Your task to perform on an android device: Go to Amazon Image 0: 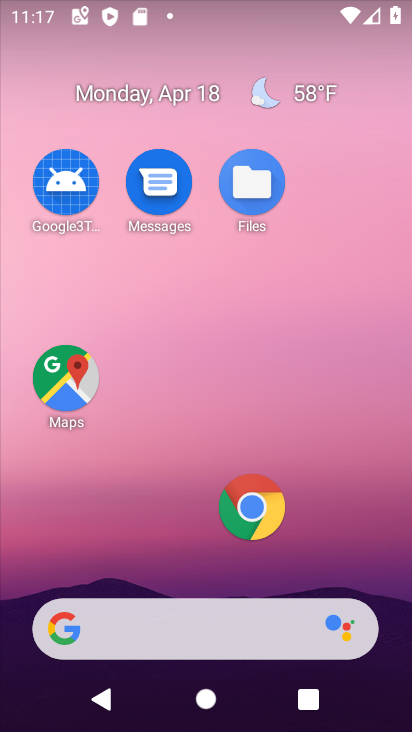
Step 0: click (244, 511)
Your task to perform on an android device: Go to Amazon Image 1: 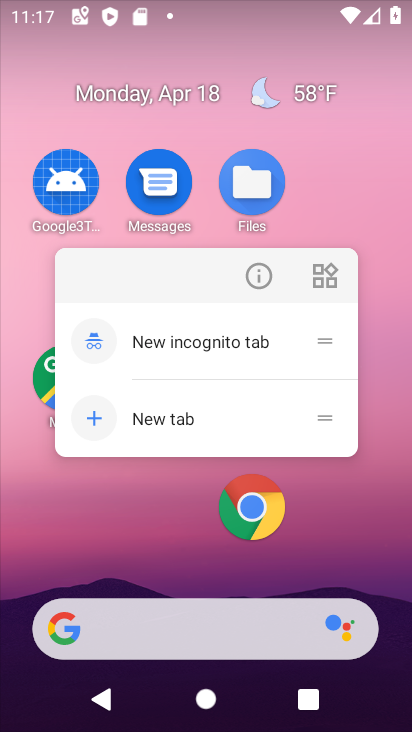
Step 1: click (255, 487)
Your task to perform on an android device: Go to Amazon Image 2: 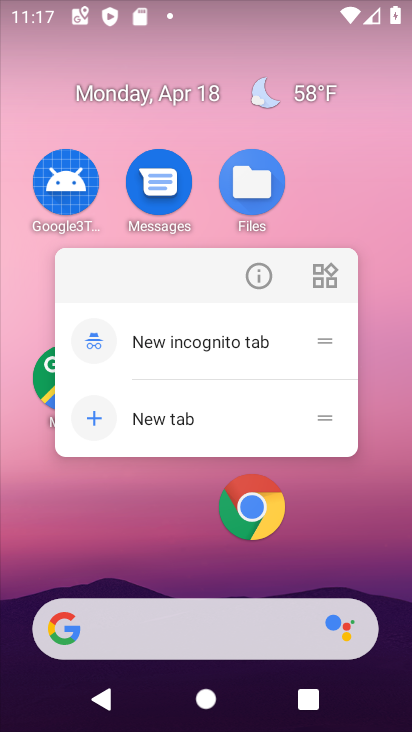
Step 2: click (254, 502)
Your task to perform on an android device: Go to Amazon Image 3: 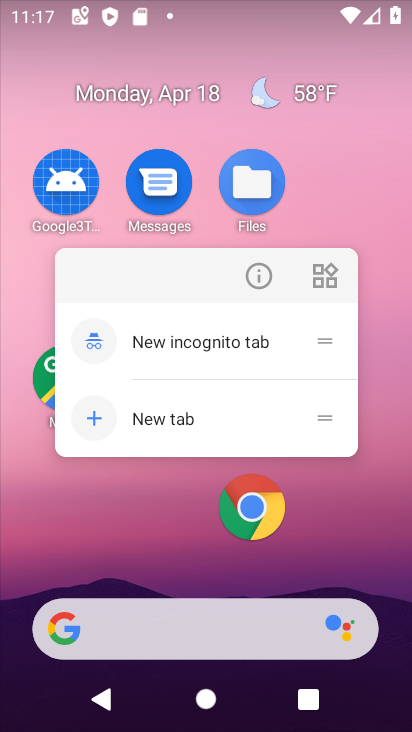
Step 3: click (254, 502)
Your task to perform on an android device: Go to Amazon Image 4: 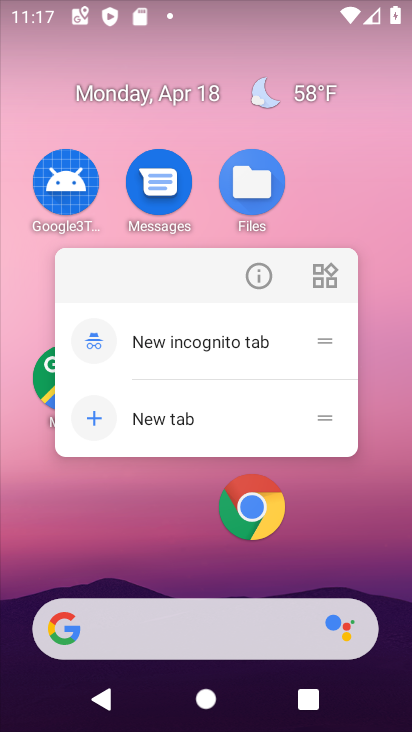
Step 4: click (254, 502)
Your task to perform on an android device: Go to Amazon Image 5: 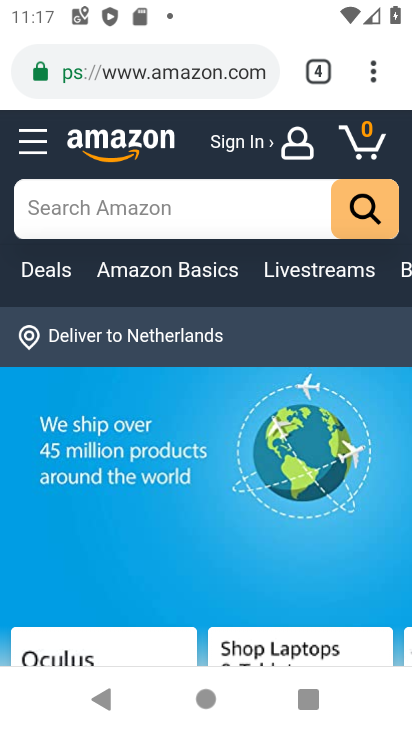
Step 5: task complete